Your task to perform on an android device: What's on my calendar today? Image 0: 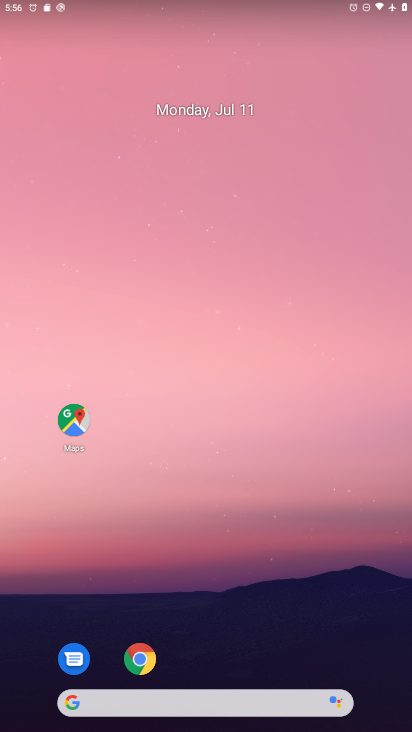
Step 0: drag from (341, 655) to (329, 191)
Your task to perform on an android device: What's on my calendar today? Image 1: 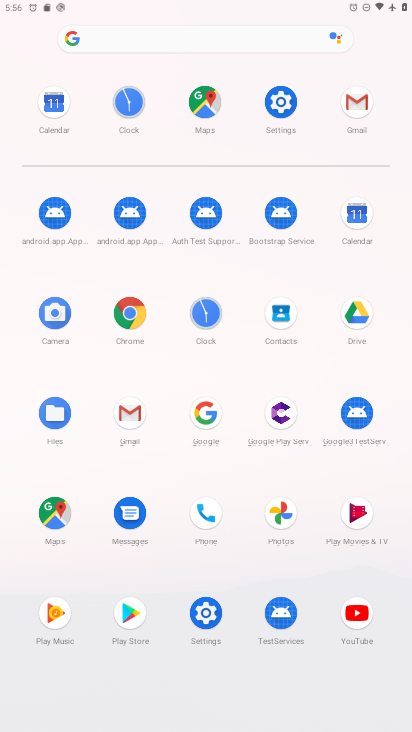
Step 1: click (358, 220)
Your task to perform on an android device: What's on my calendar today? Image 2: 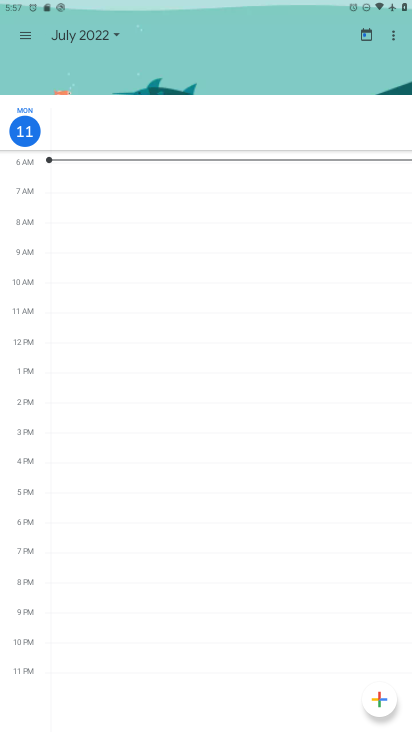
Step 2: task complete